Your task to perform on an android device: What's on my calendar tomorrow? Image 0: 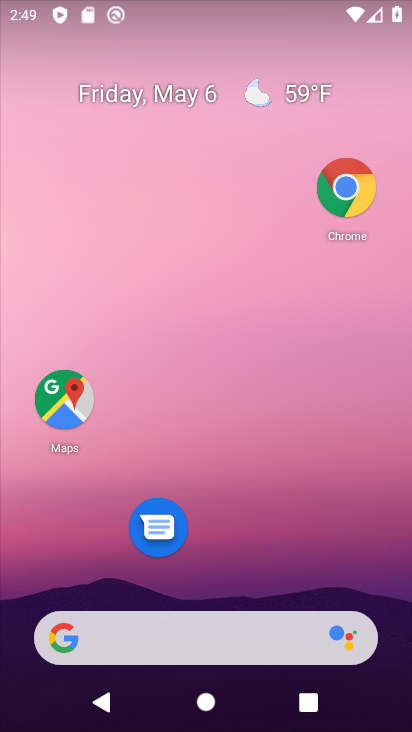
Step 0: drag from (292, 545) to (332, 47)
Your task to perform on an android device: What's on my calendar tomorrow? Image 1: 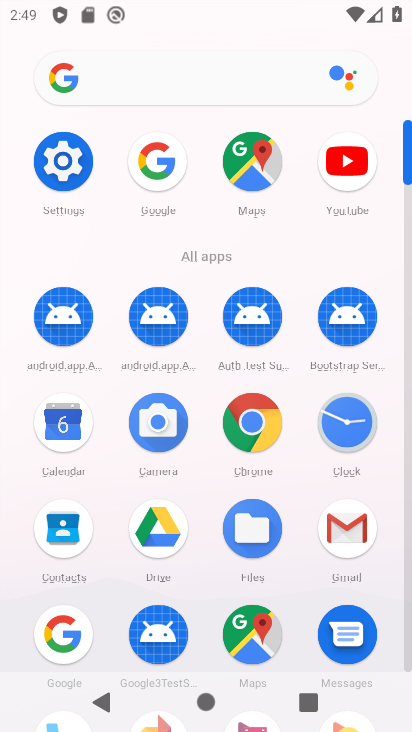
Step 1: click (72, 465)
Your task to perform on an android device: What's on my calendar tomorrow? Image 2: 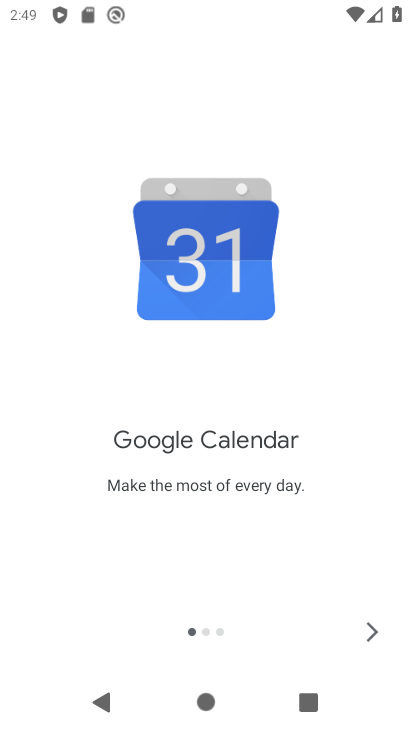
Step 2: click (362, 648)
Your task to perform on an android device: What's on my calendar tomorrow? Image 3: 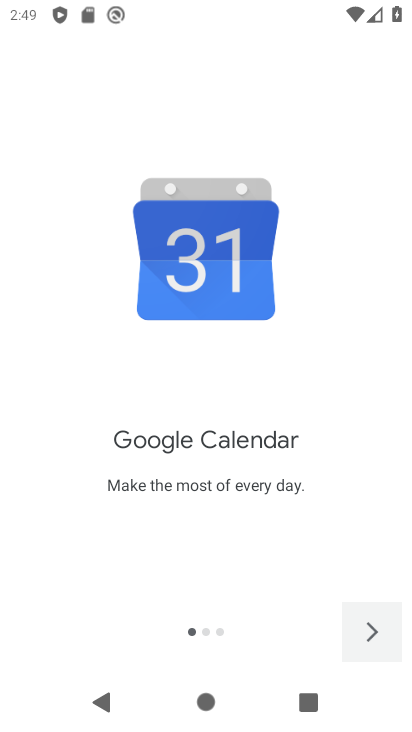
Step 3: click (365, 646)
Your task to perform on an android device: What's on my calendar tomorrow? Image 4: 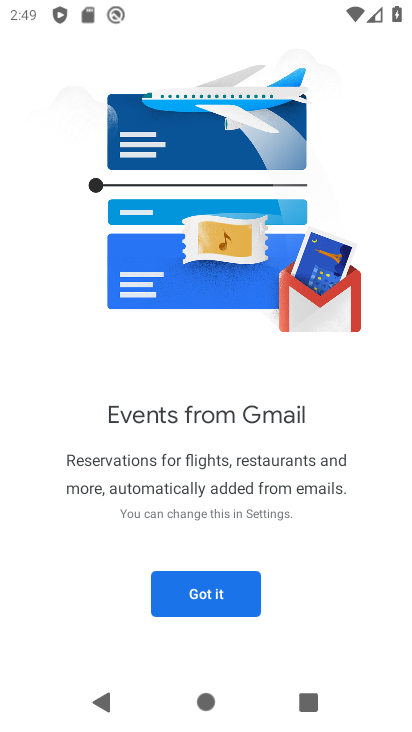
Step 4: click (240, 584)
Your task to perform on an android device: What's on my calendar tomorrow? Image 5: 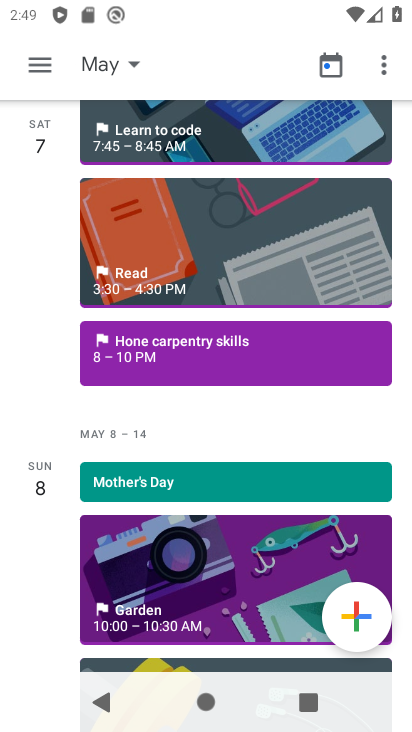
Step 5: task complete